Your task to perform on an android device: toggle notification dots Image 0: 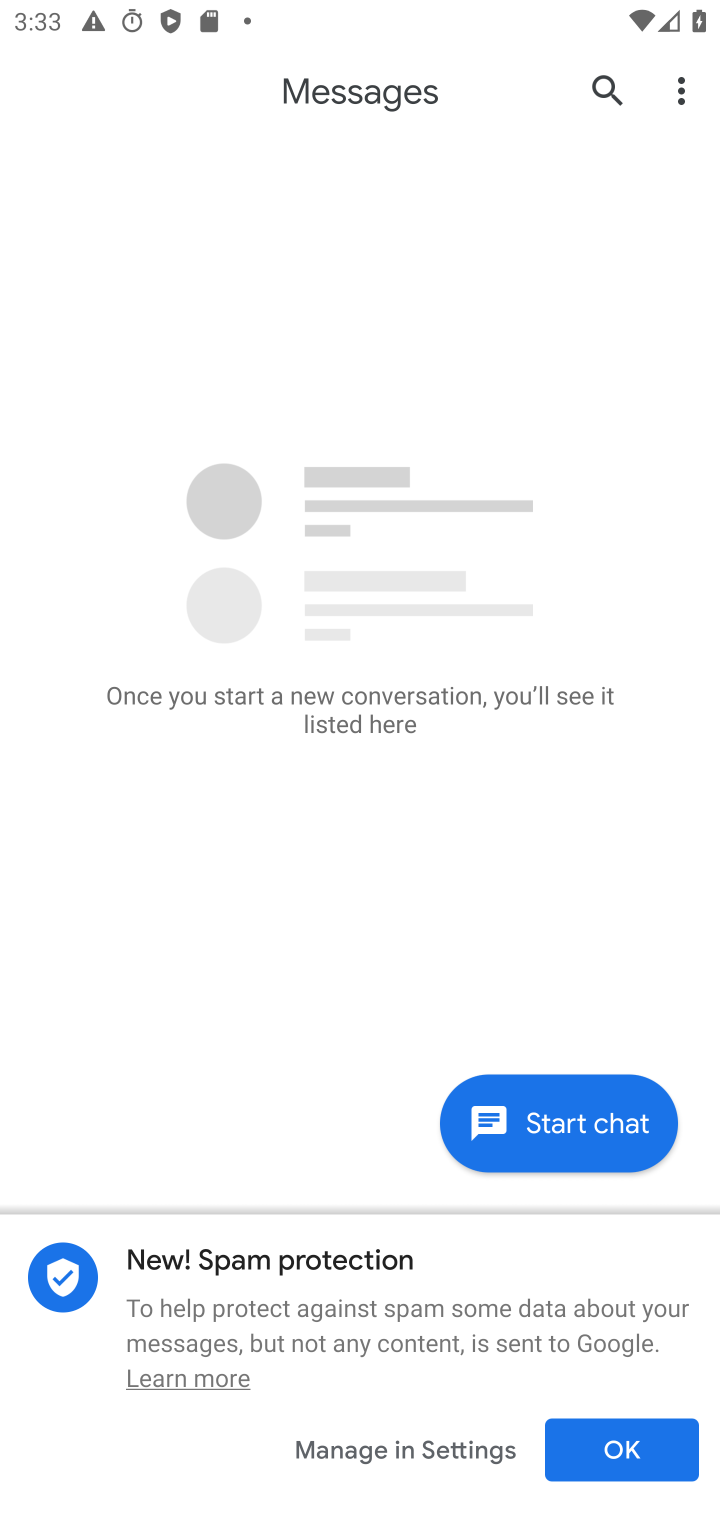
Step 0: press home button
Your task to perform on an android device: toggle notification dots Image 1: 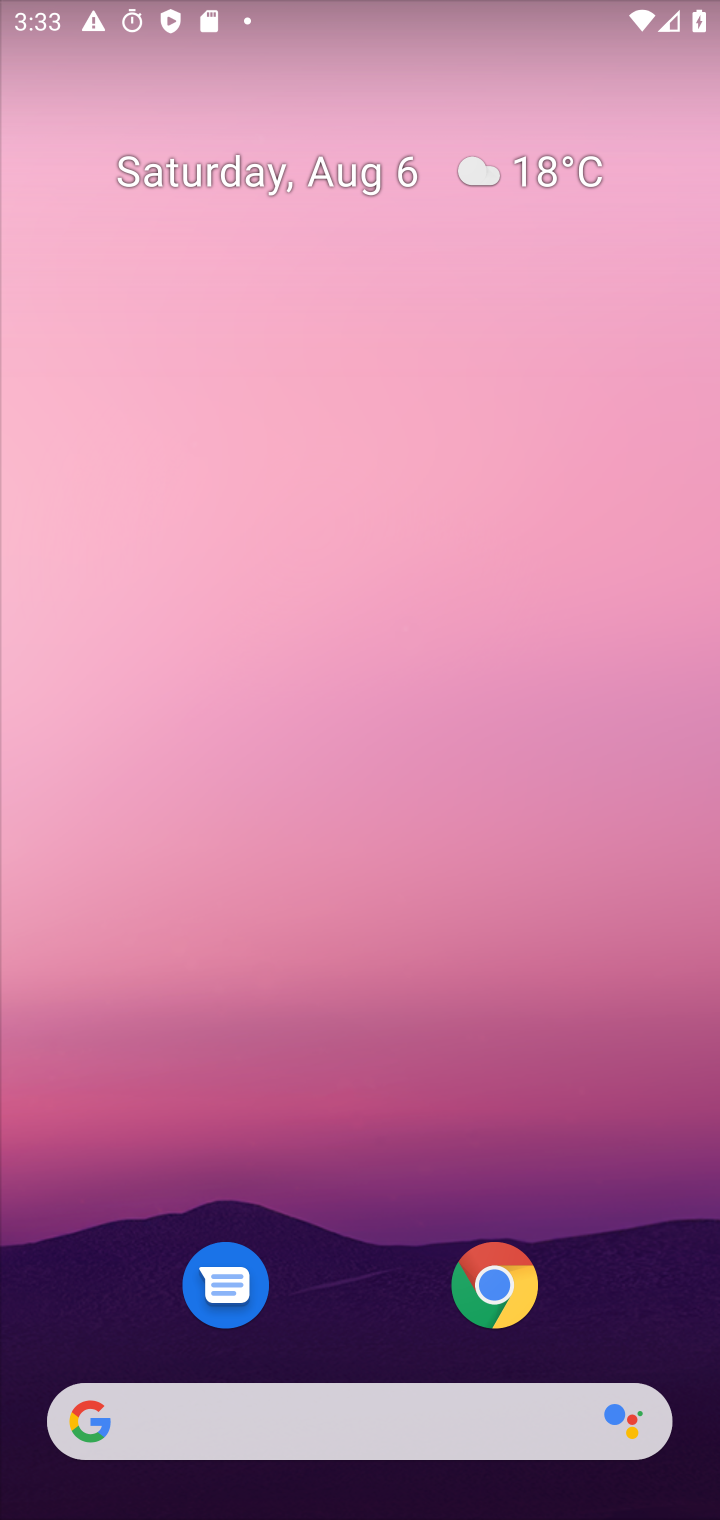
Step 1: drag from (358, 1326) to (461, 150)
Your task to perform on an android device: toggle notification dots Image 2: 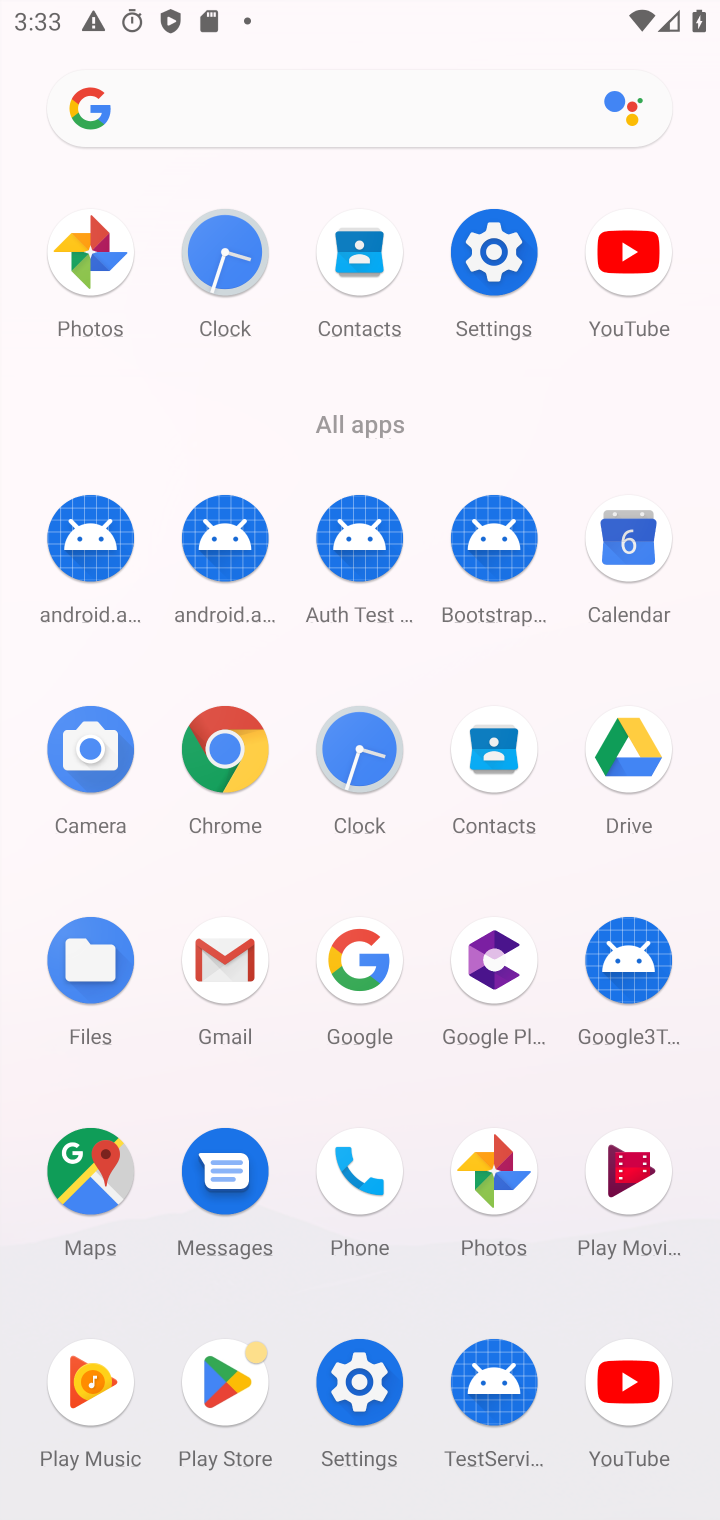
Step 2: click (484, 238)
Your task to perform on an android device: toggle notification dots Image 3: 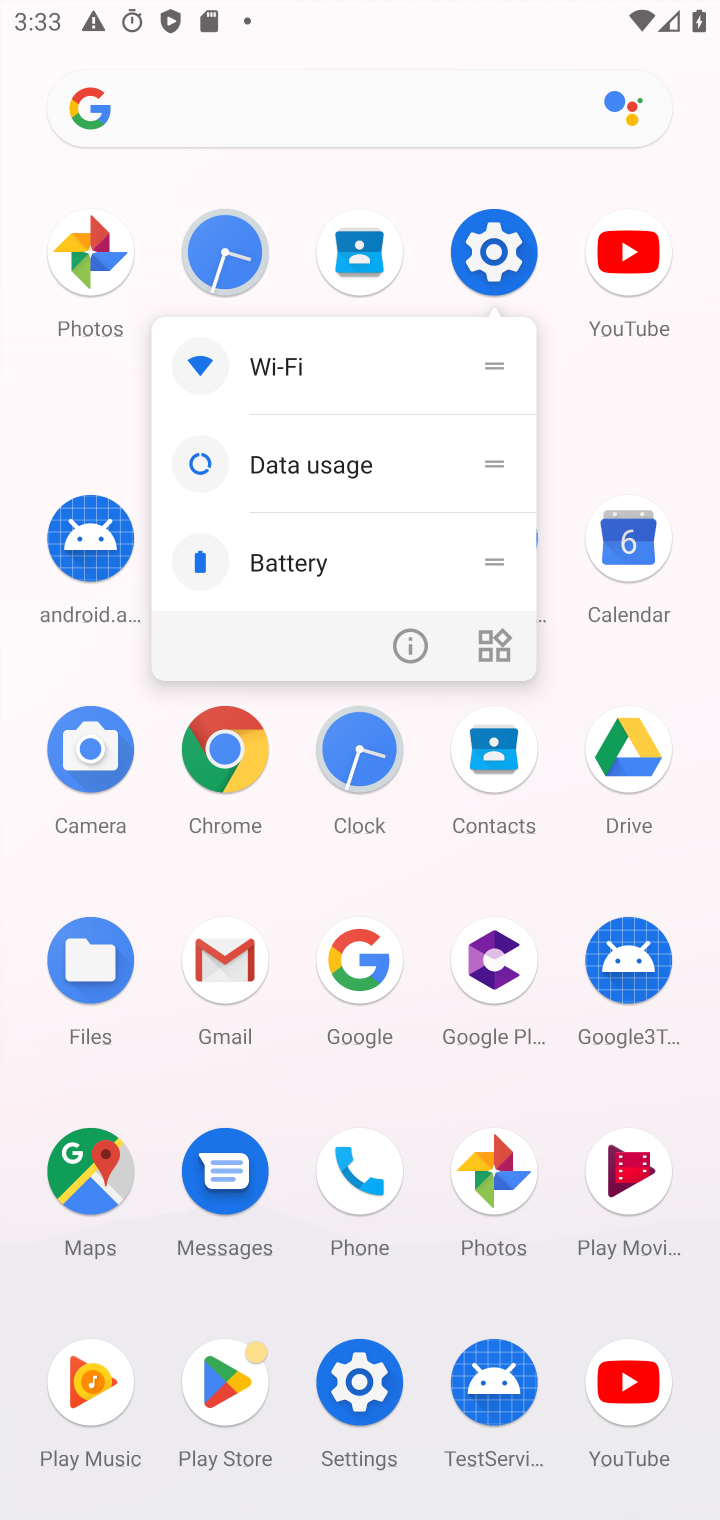
Step 3: click (487, 240)
Your task to perform on an android device: toggle notification dots Image 4: 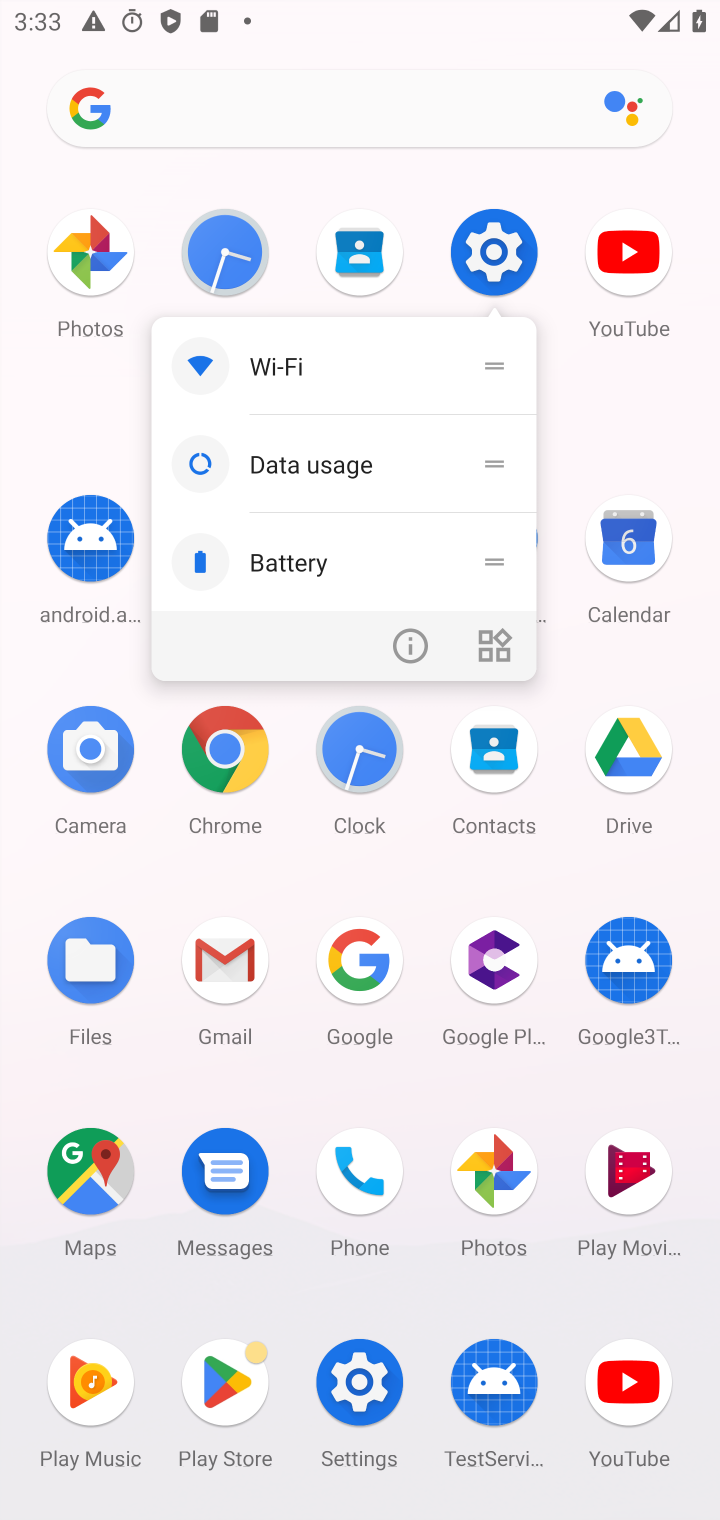
Step 4: click (494, 243)
Your task to perform on an android device: toggle notification dots Image 5: 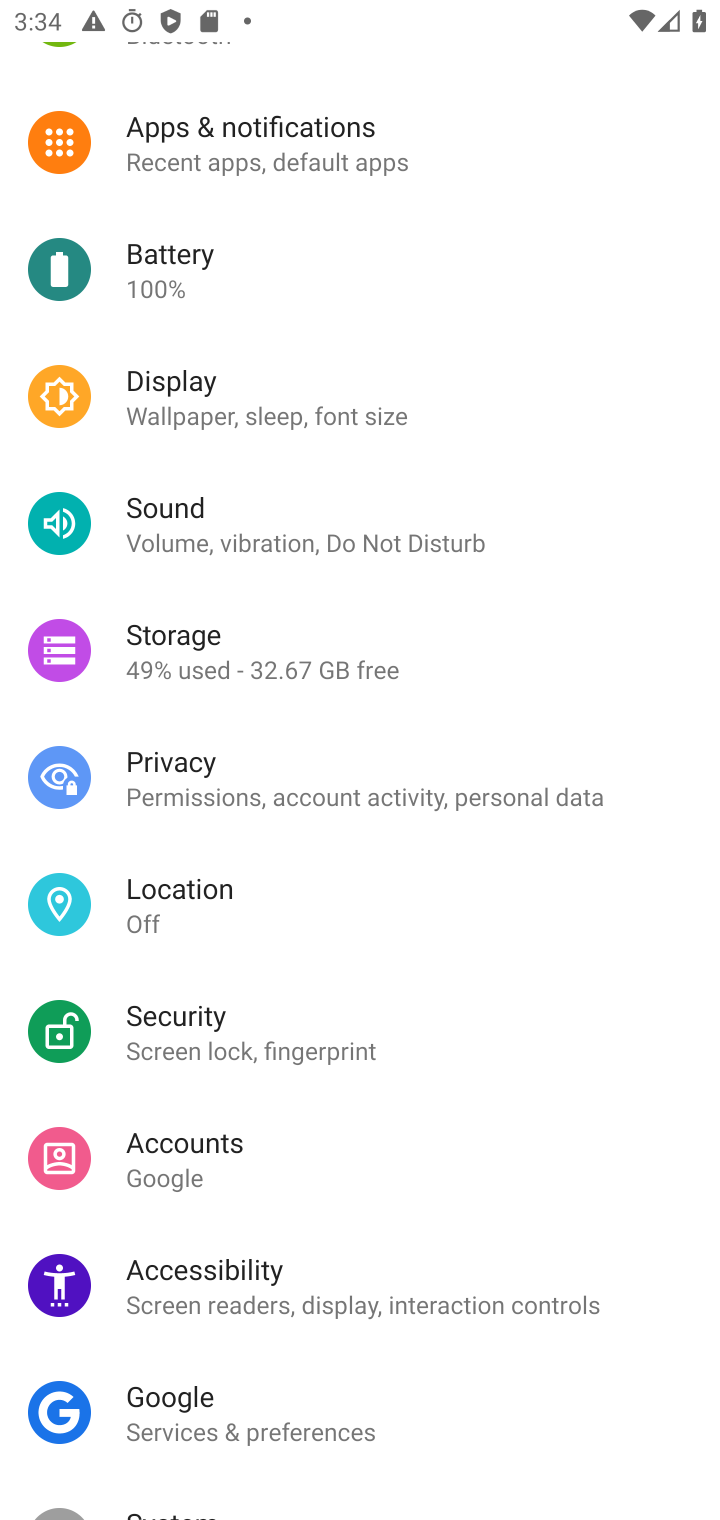
Step 5: click (271, 163)
Your task to perform on an android device: toggle notification dots Image 6: 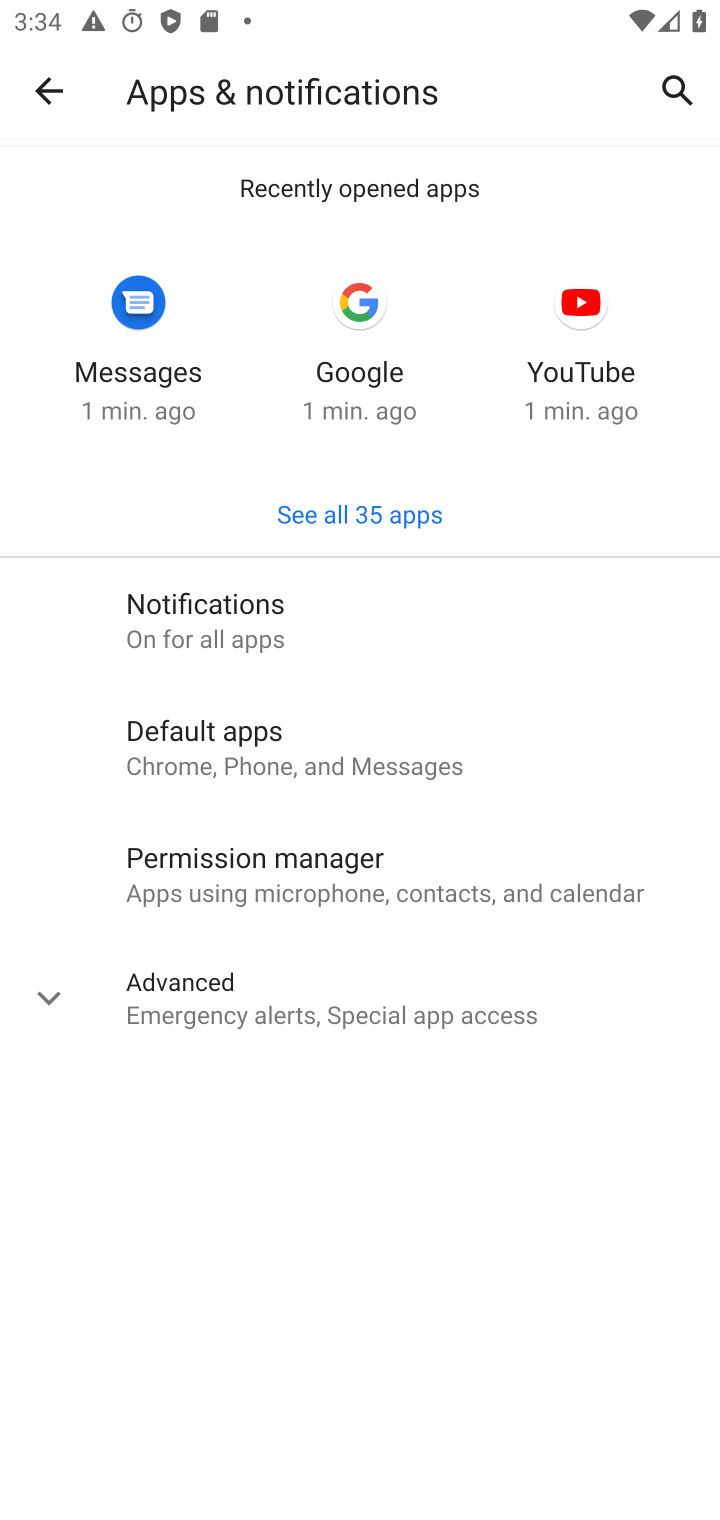
Step 6: click (175, 588)
Your task to perform on an android device: toggle notification dots Image 7: 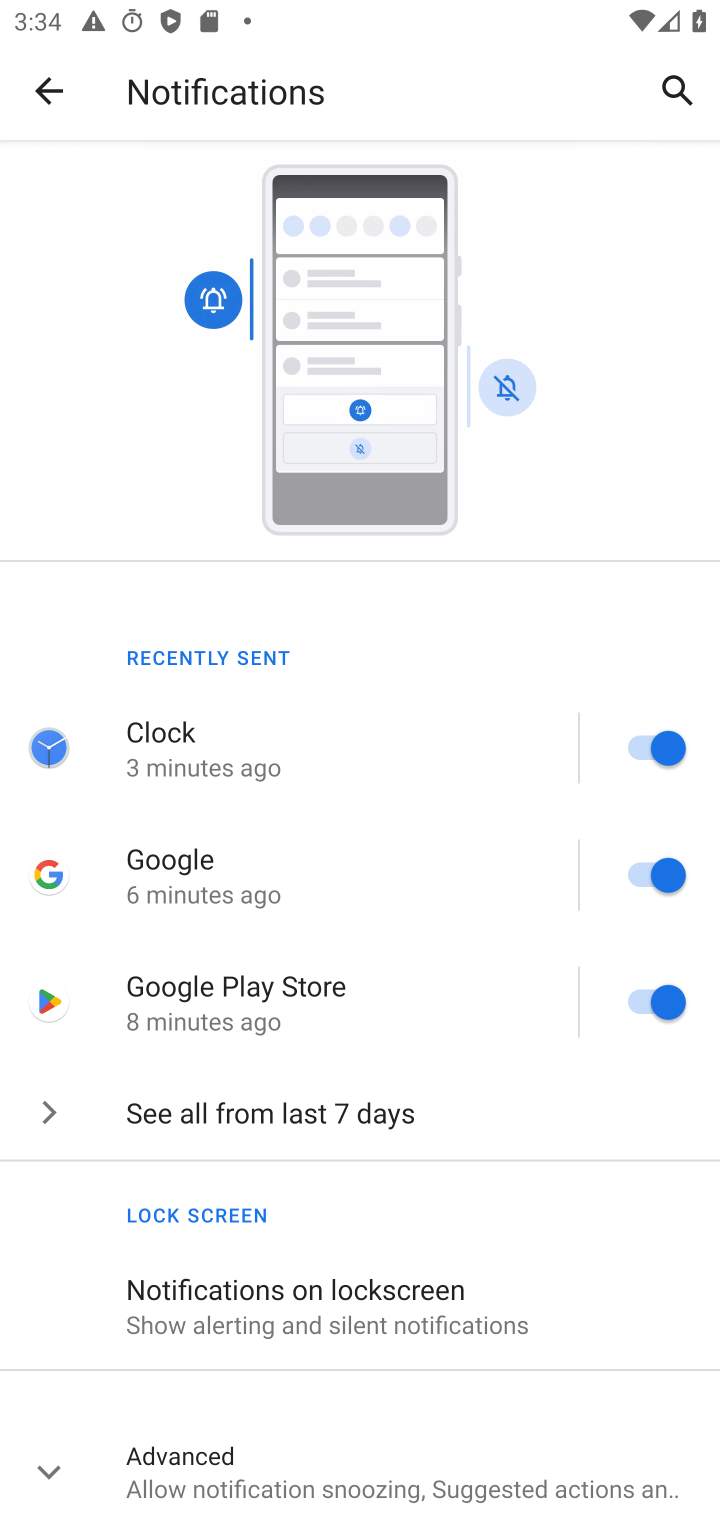
Step 7: drag from (206, 632) to (208, 290)
Your task to perform on an android device: toggle notification dots Image 8: 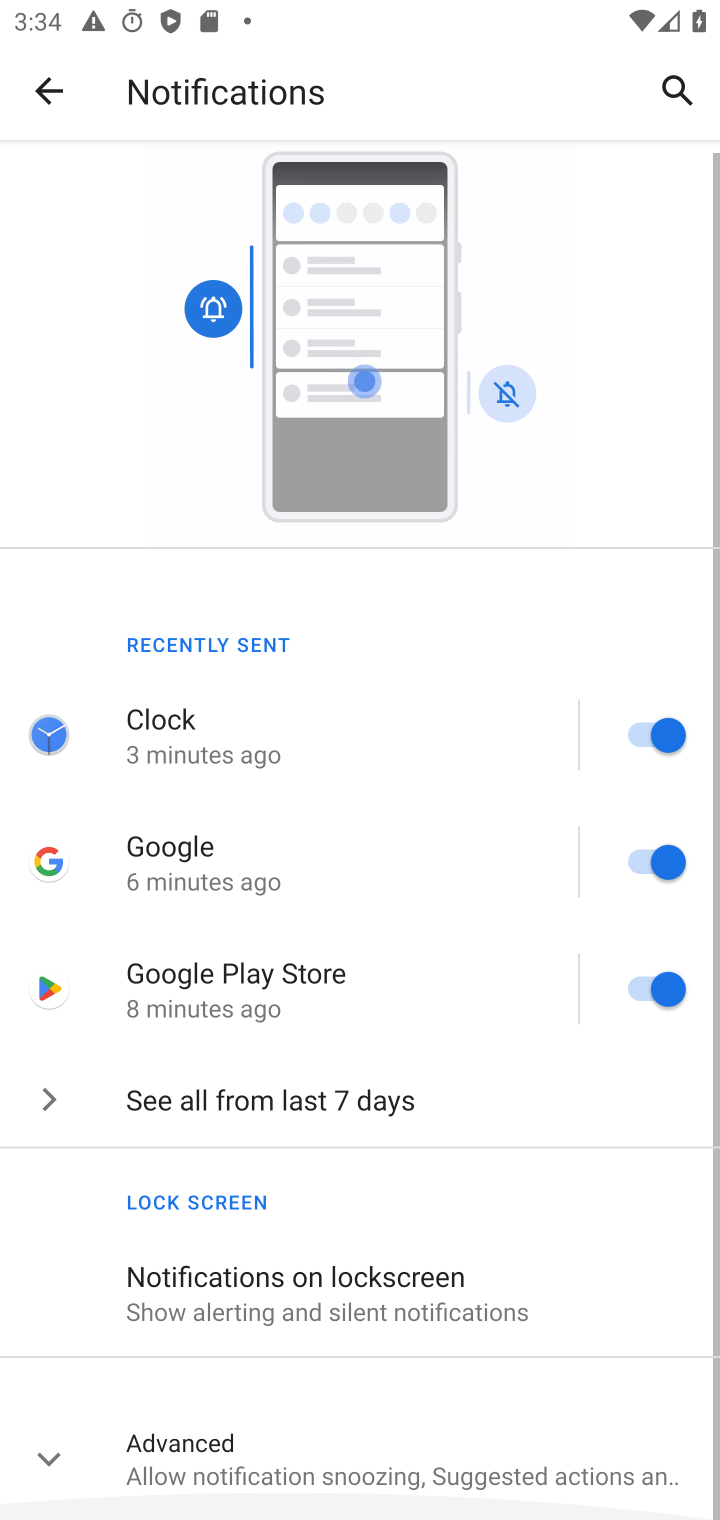
Step 8: drag from (277, 1048) to (347, 214)
Your task to perform on an android device: toggle notification dots Image 9: 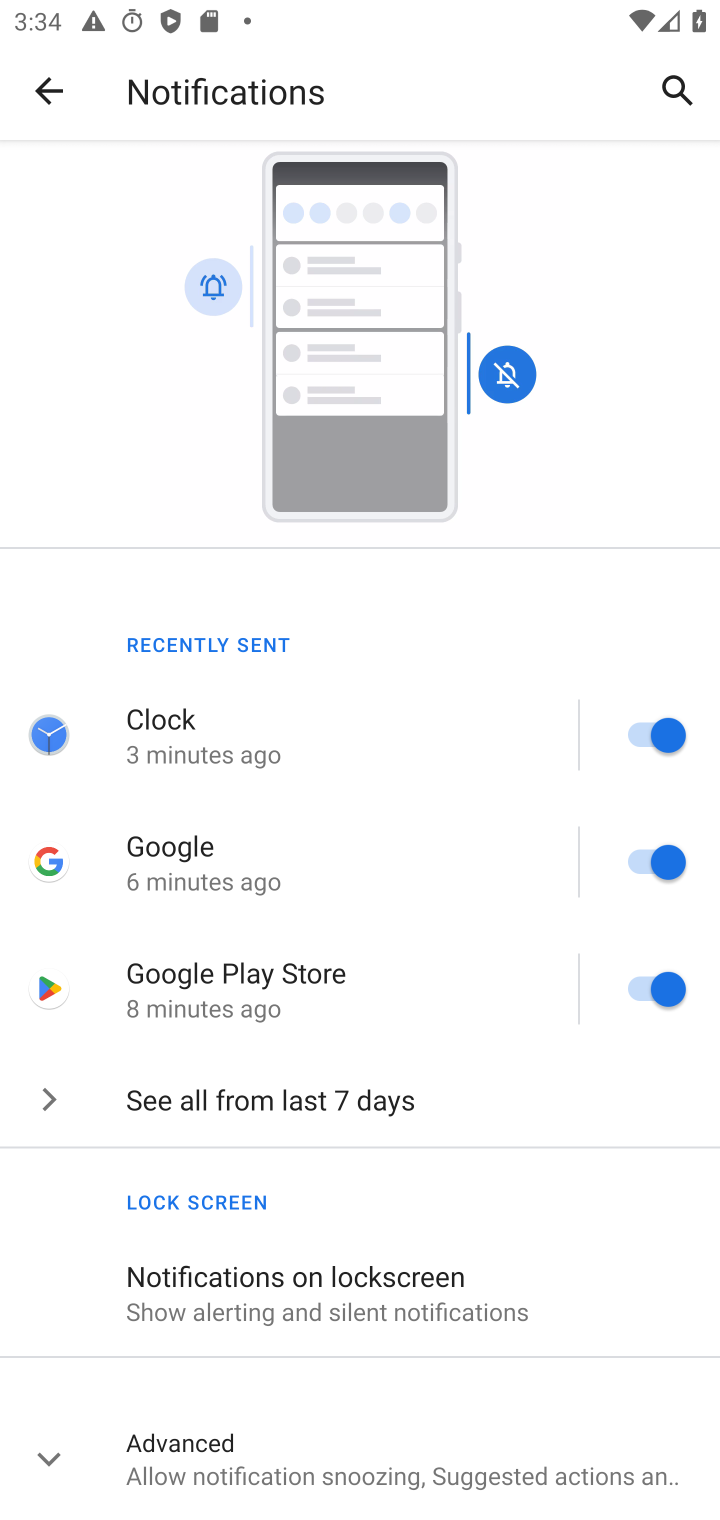
Step 9: click (56, 1446)
Your task to perform on an android device: toggle notification dots Image 10: 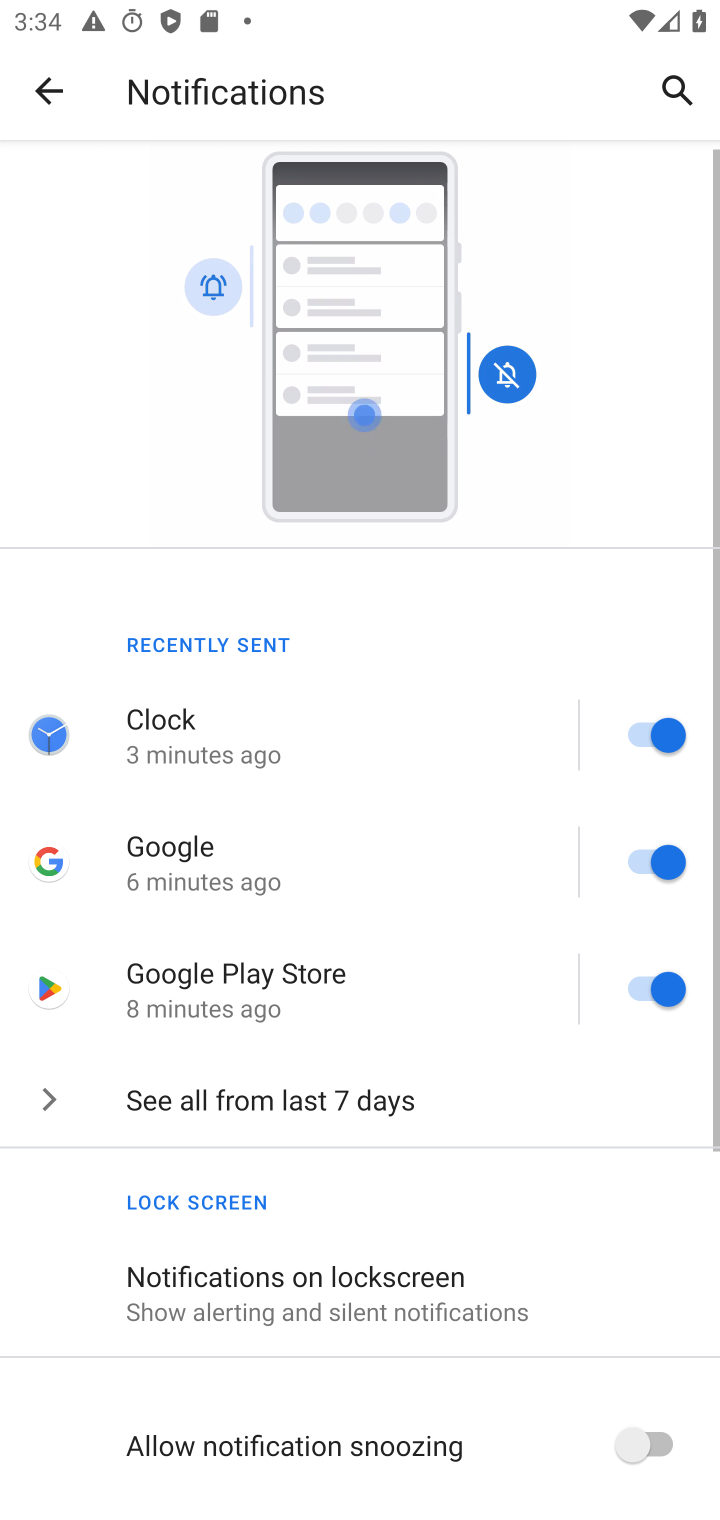
Step 10: drag from (235, 1412) to (282, 291)
Your task to perform on an android device: toggle notification dots Image 11: 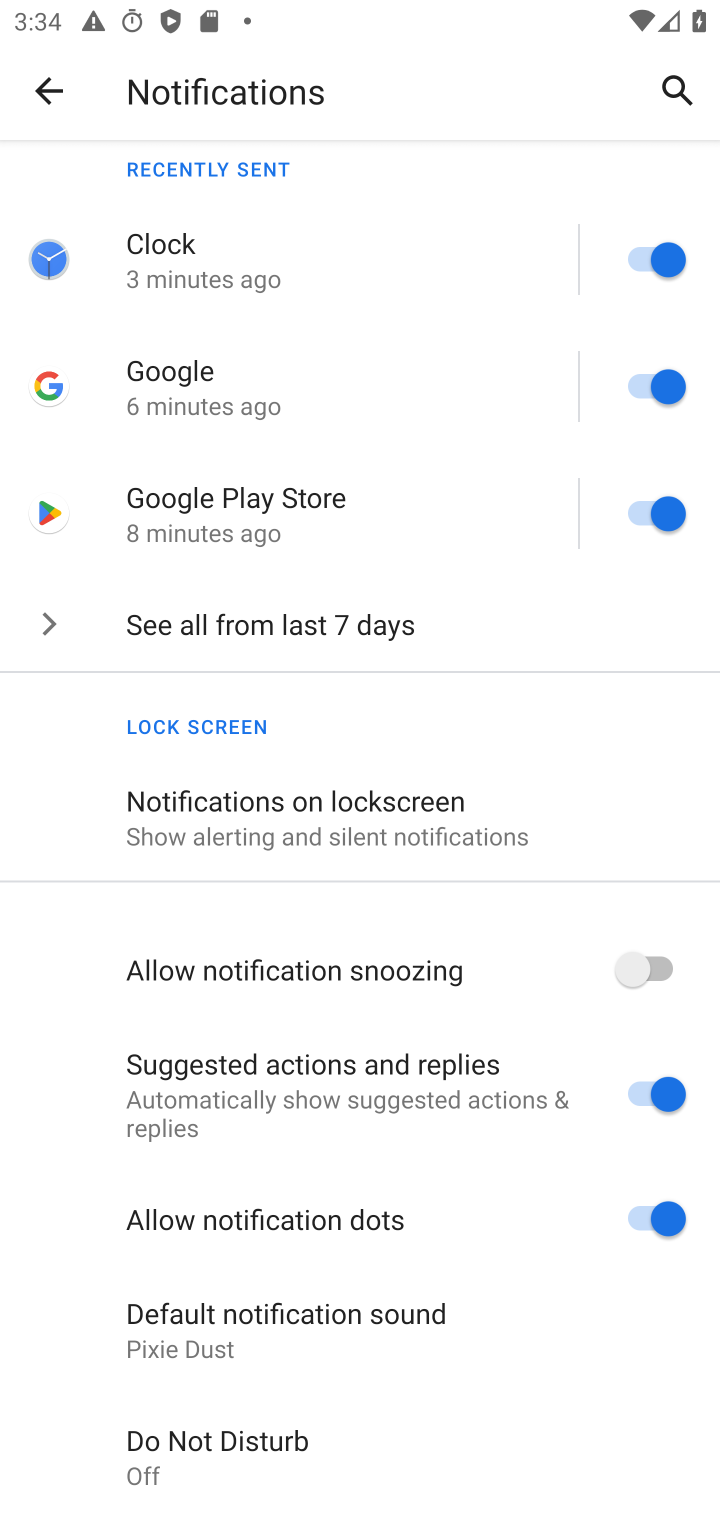
Step 11: click (629, 1203)
Your task to perform on an android device: toggle notification dots Image 12: 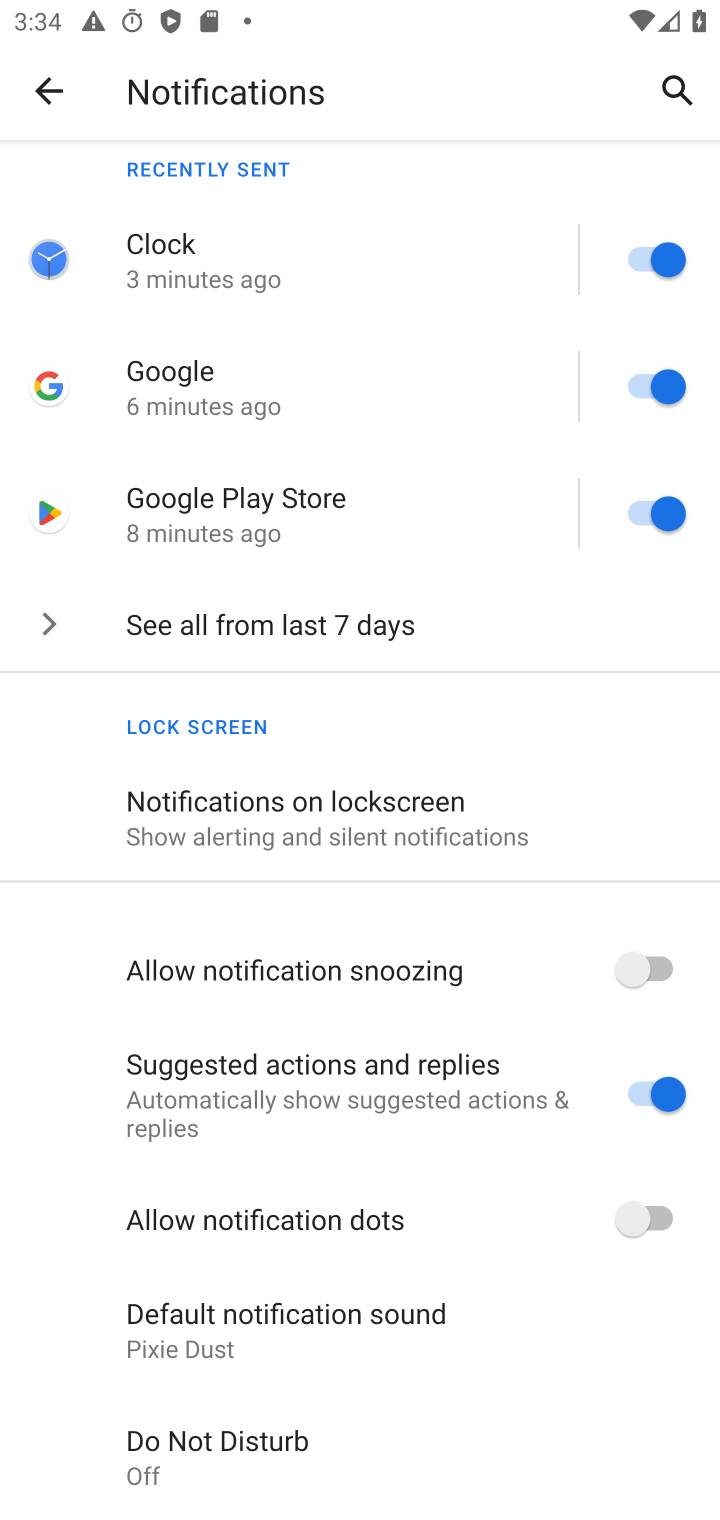
Step 12: task complete